Your task to perform on an android device: toggle javascript in the chrome app Image 0: 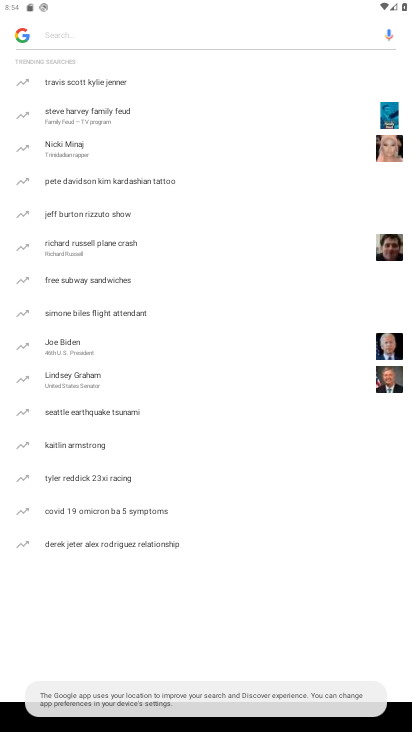
Step 0: press home button
Your task to perform on an android device: toggle javascript in the chrome app Image 1: 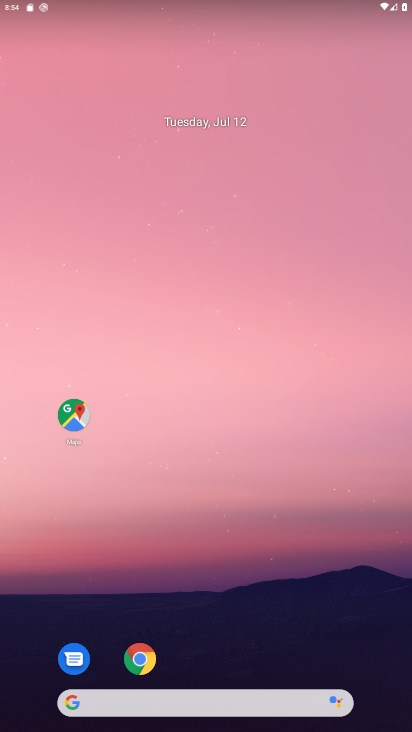
Step 1: drag from (300, 588) to (241, 108)
Your task to perform on an android device: toggle javascript in the chrome app Image 2: 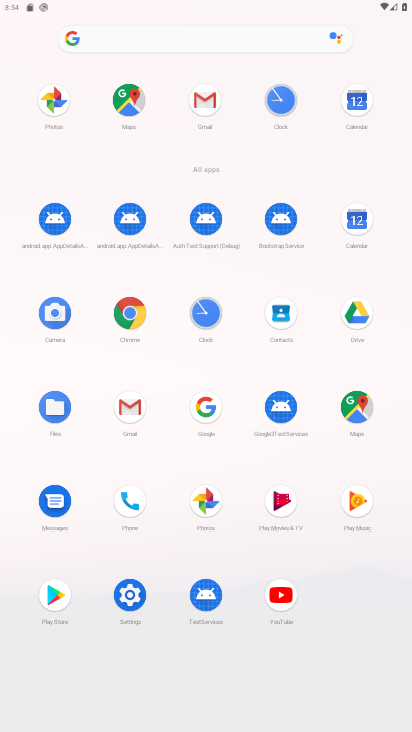
Step 2: click (126, 310)
Your task to perform on an android device: toggle javascript in the chrome app Image 3: 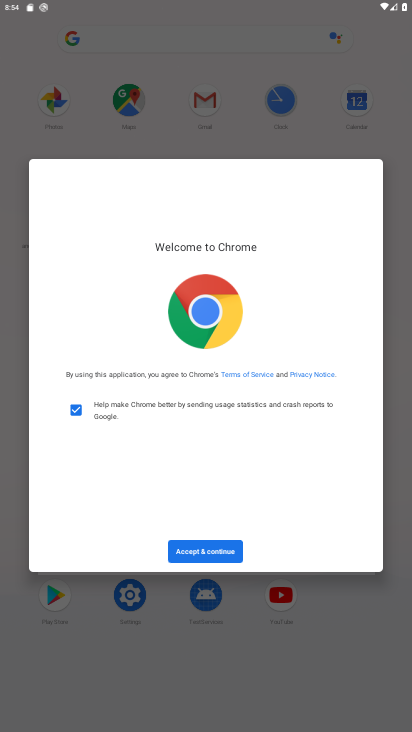
Step 3: click (220, 544)
Your task to perform on an android device: toggle javascript in the chrome app Image 4: 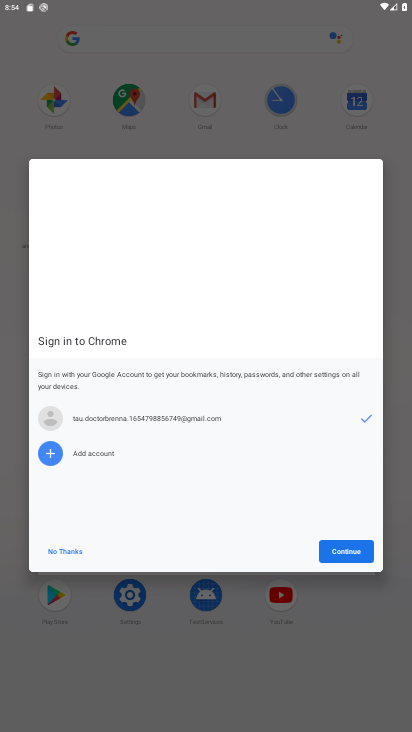
Step 4: click (369, 548)
Your task to perform on an android device: toggle javascript in the chrome app Image 5: 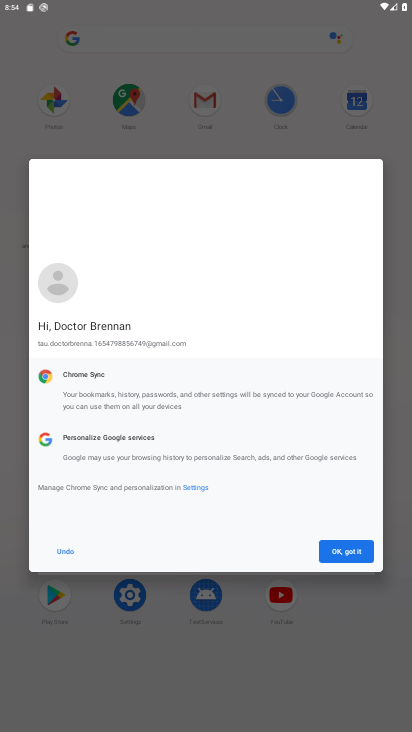
Step 5: click (369, 548)
Your task to perform on an android device: toggle javascript in the chrome app Image 6: 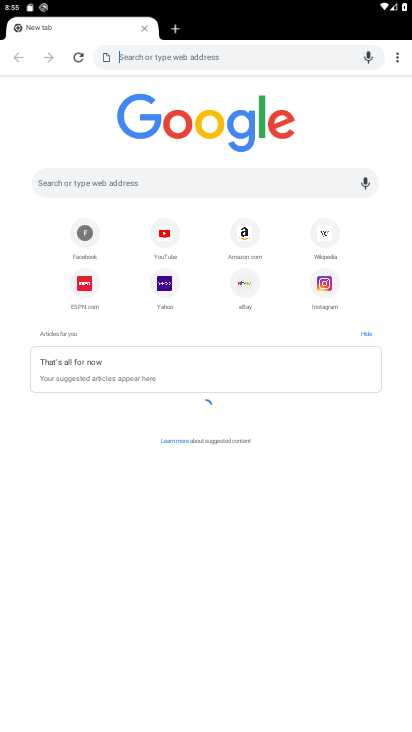
Step 6: drag from (401, 48) to (289, 261)
Your task to perform on an android device: toggle javascript in the chrome app Image 7: 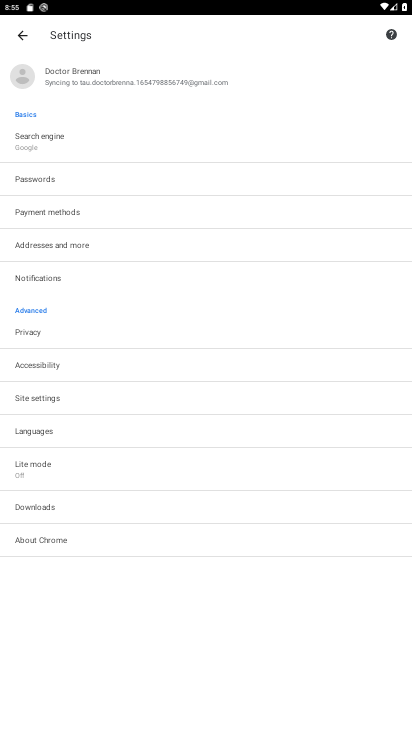
Step 7: click (35, 397)
Your task to perform on an android device: toggle javascript in the chrome app Image 8: 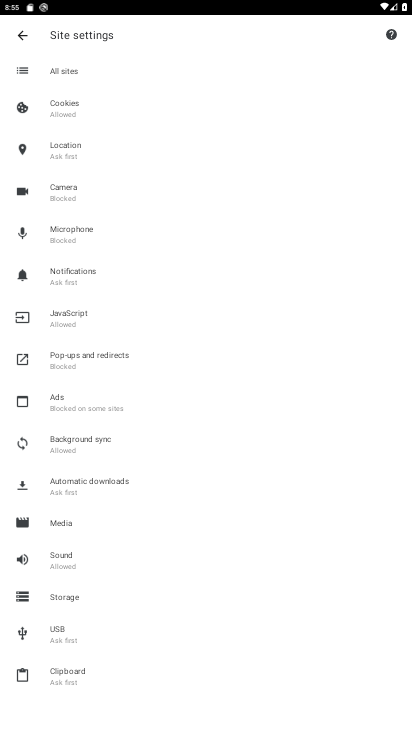
Step 8: click (66, 306)
Your task to perform on an android device: toggle javascript in the chrome app Image 9: 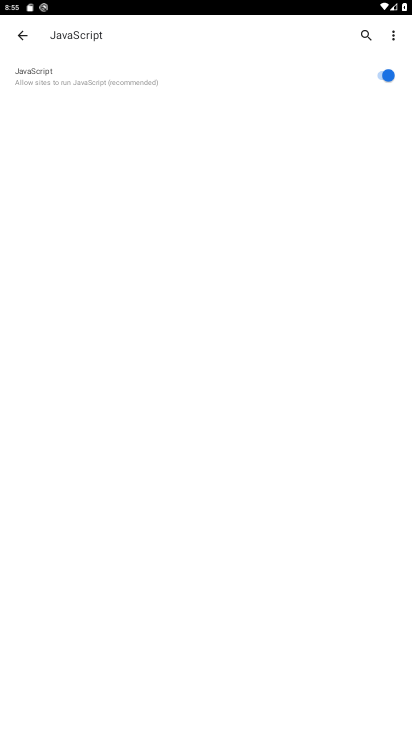
Step 9: click (383, 74)
Your task to perform on an android device: toggle javascript in the chrome app Image 10: 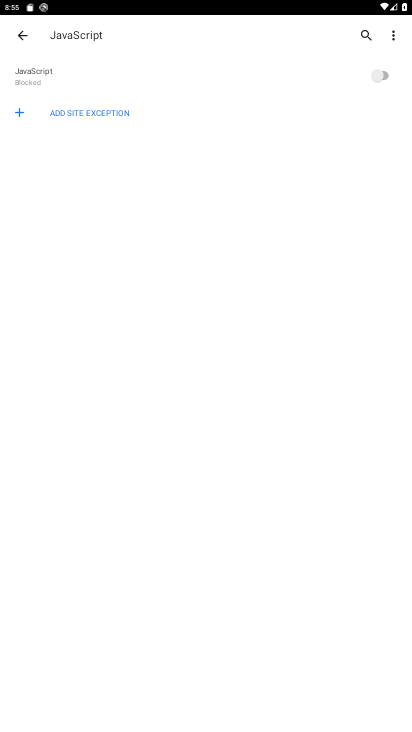
Step 10: task complete